Your task to perform on an android device: open app "PUBG MOBILE" Image 0: 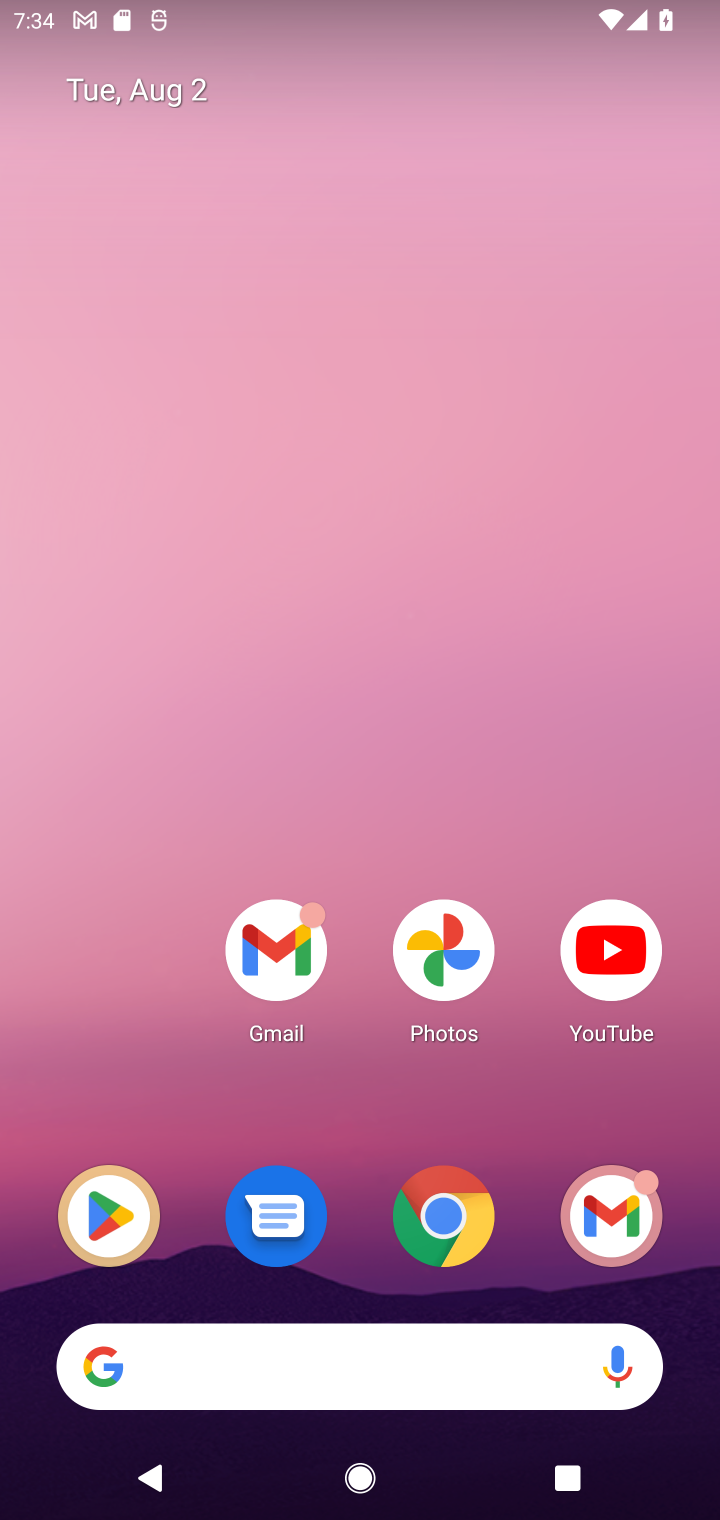
Step 0: click (101, 1213)
Your task to perform on an android device: open app "PUBG MOBILE" Image 1: 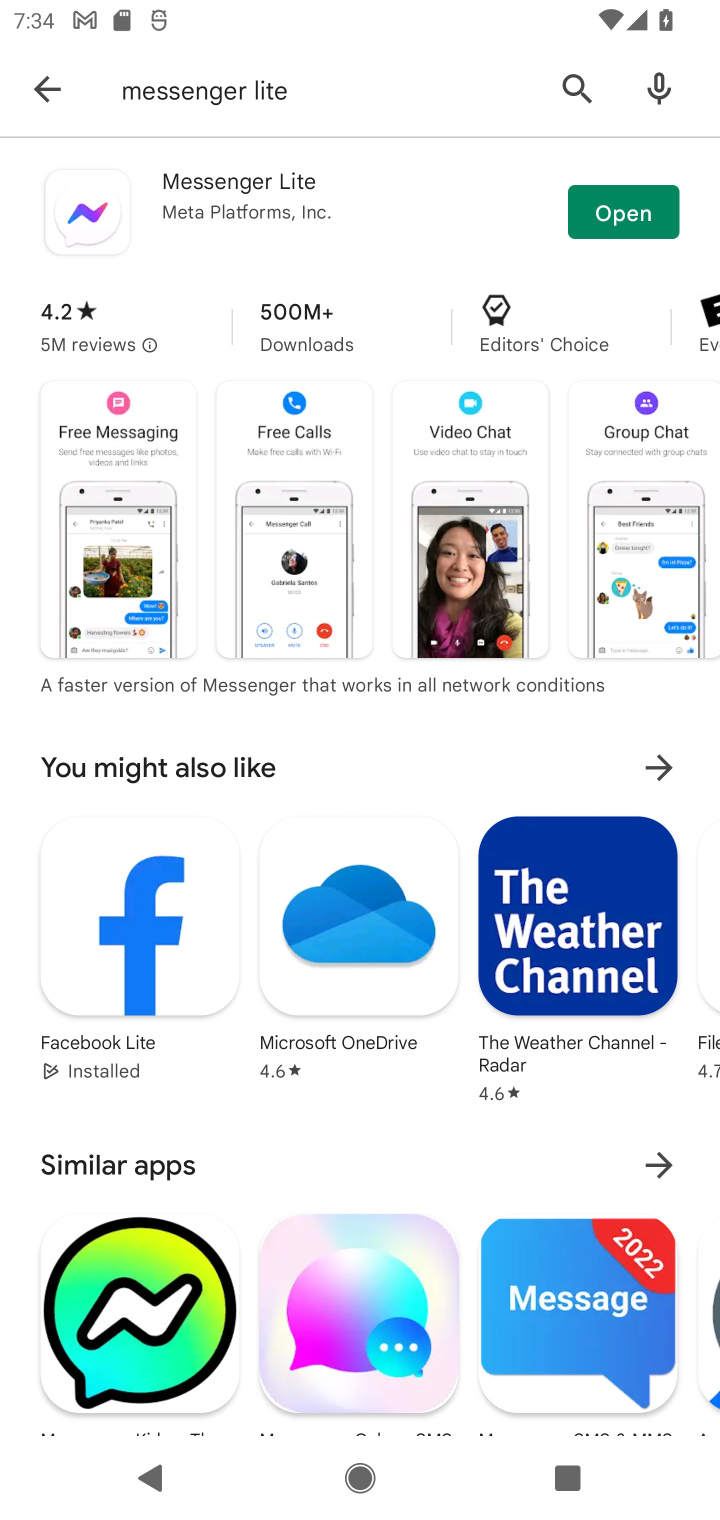
Step 1: click (571, 81)
Your task to perform on an android device: open app "PUBG MOBILE" Image 2: 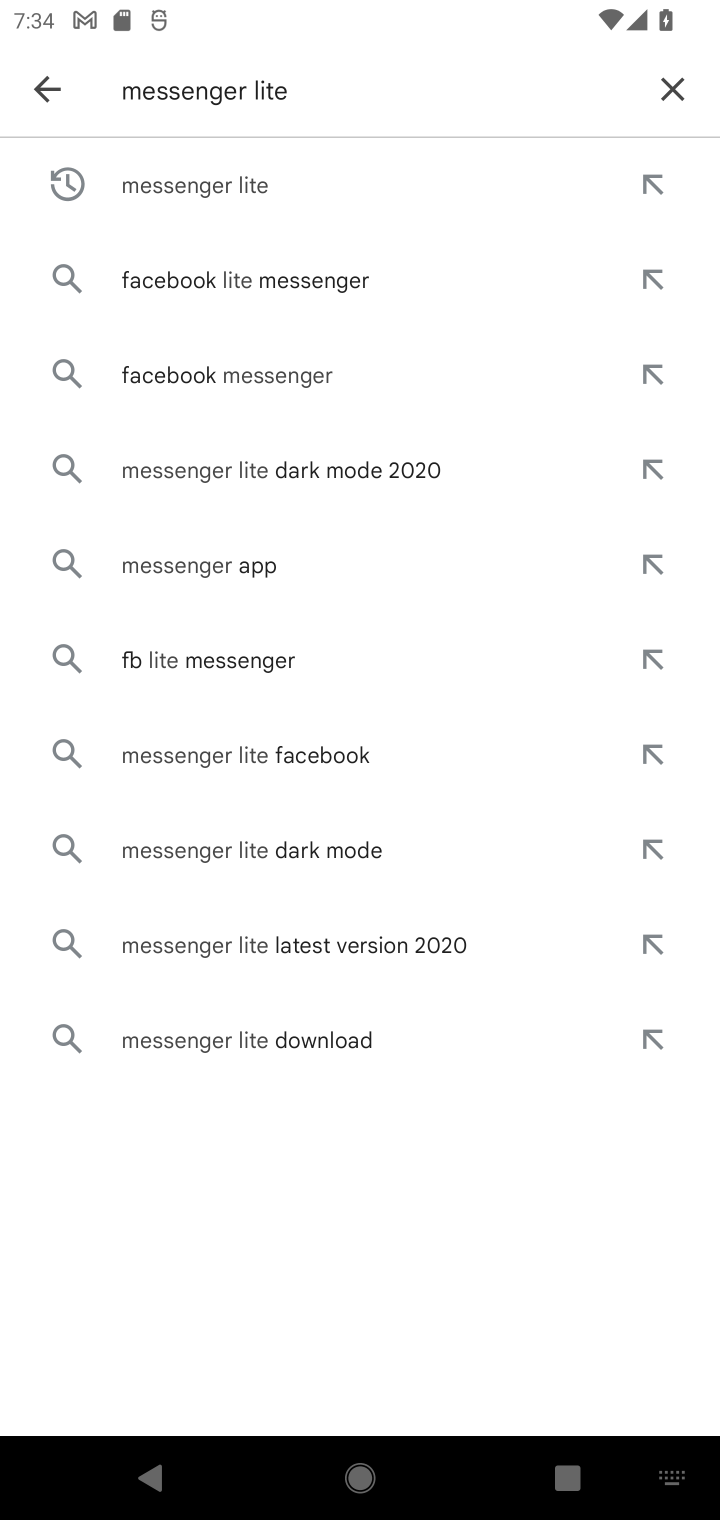
Step 2: click (682, 75)
Your task to perform on an android device: open app "PUBG MOBILE" Image 3: 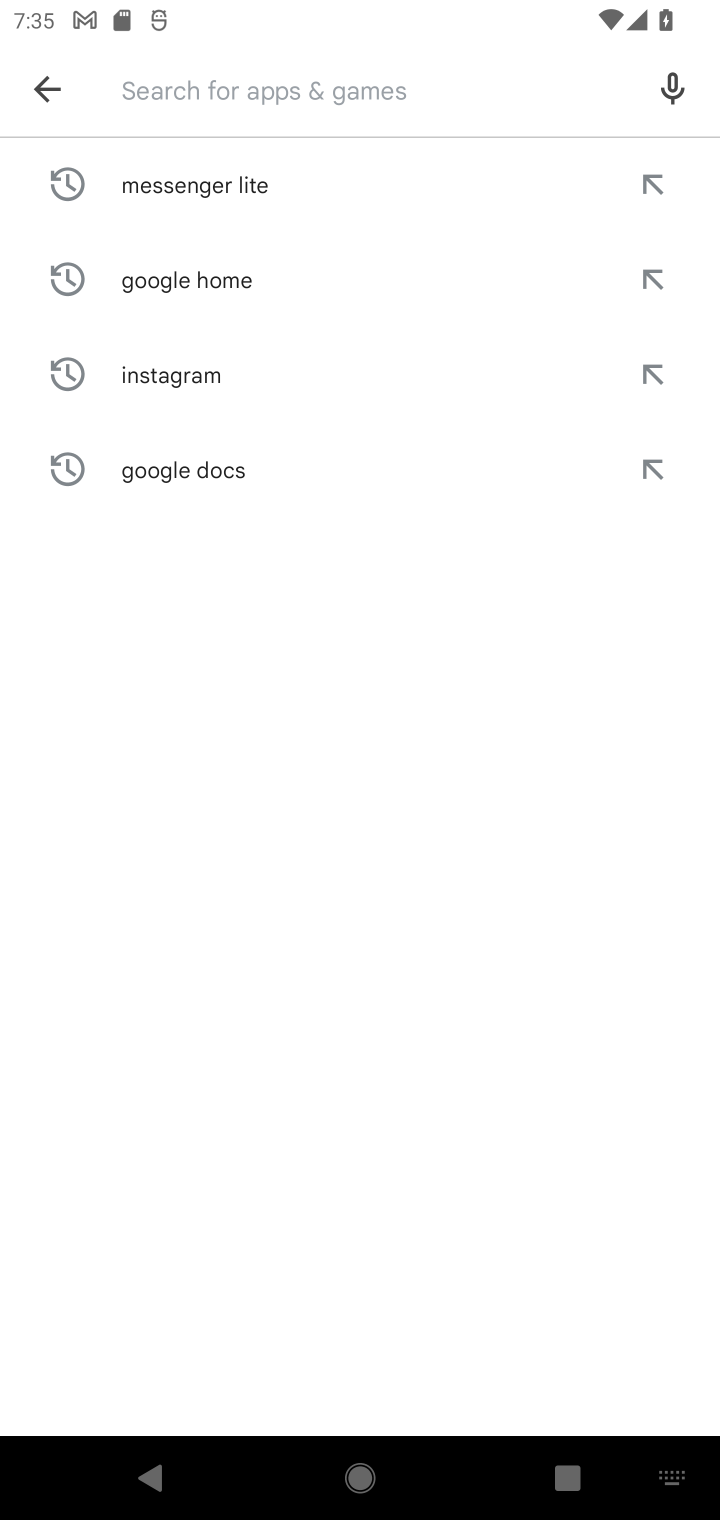
Step 3: type "PUBG MOBILE"
Your task to perform on an android device: open app "PUBG MOBILE" Image 4: 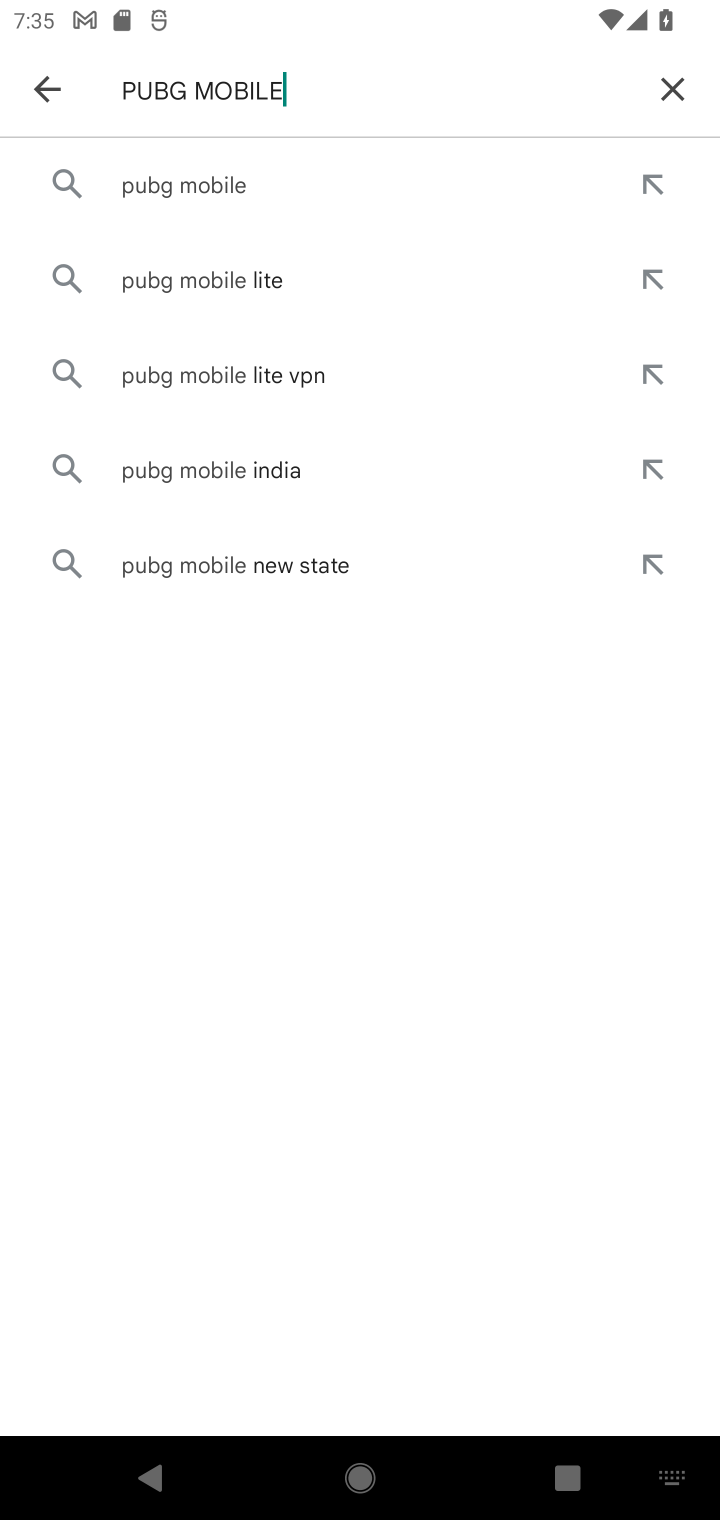
Step 4: click (210, 174)
Your task to perform on an android device: open app "PUBG MOBILE" Image 5: 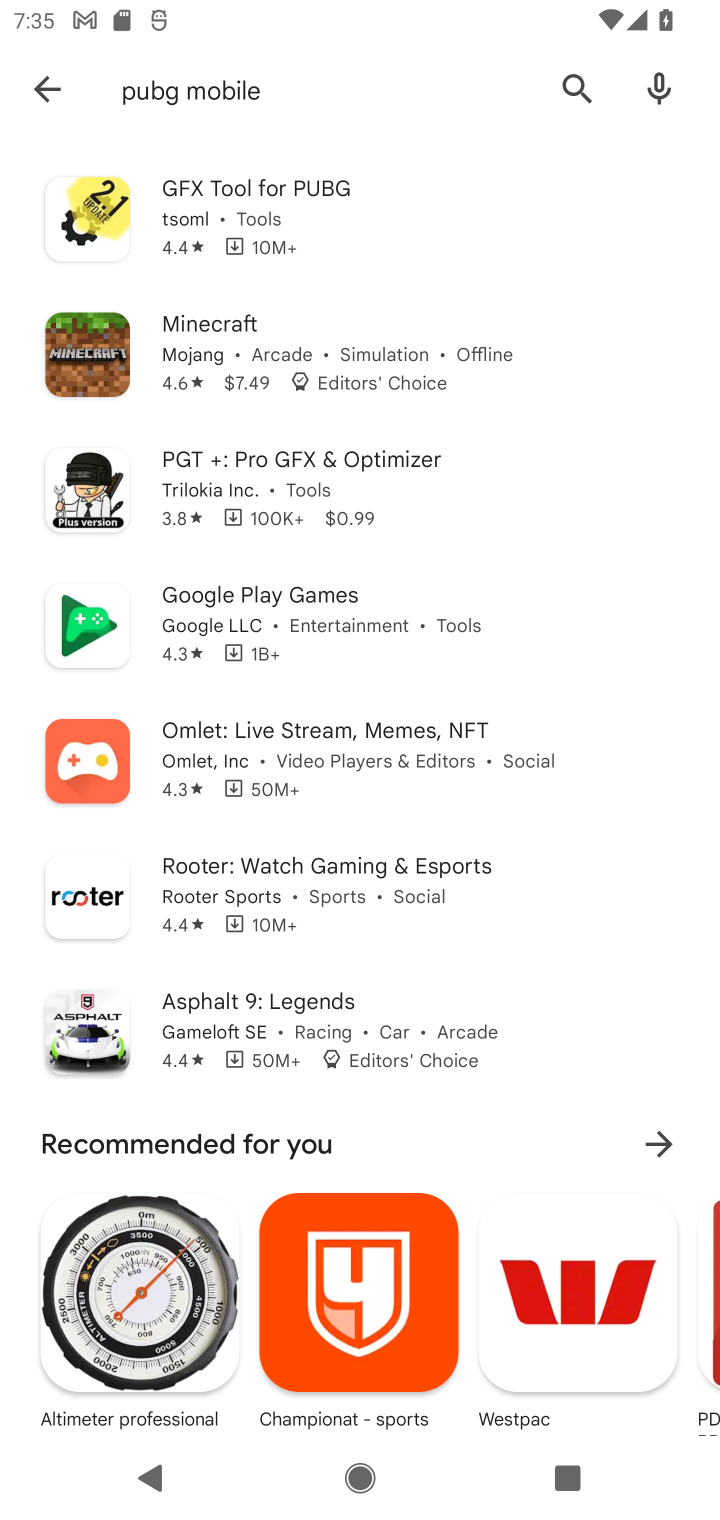
Step 5: task complete